Your task to perform on an android device: Open settings Image 0: 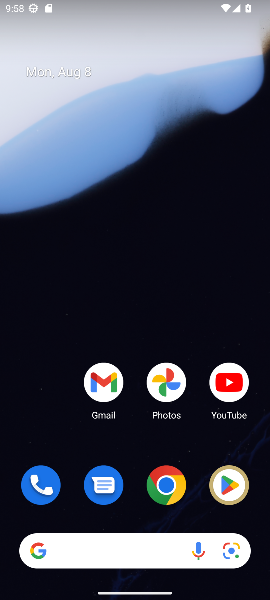
Step 0: drag from (207, 450) to (195, 25)
Your task to perform on an android device: Open settings Image 1: 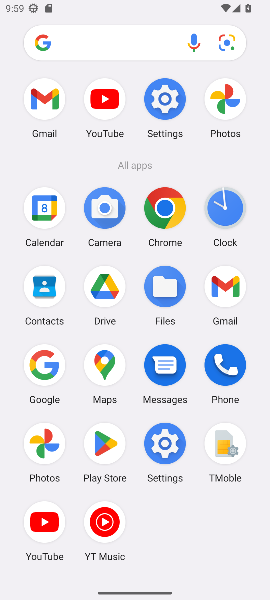
Step 1: click (171, 441)
Your task to perform on an android device: Open settings Image 2: 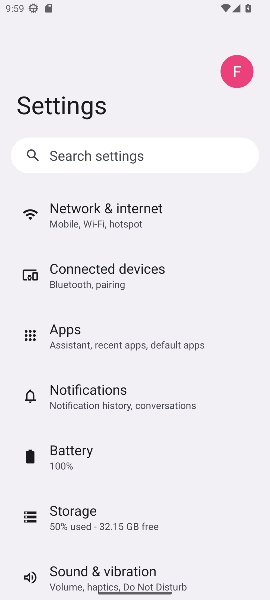
Step 2: task complete